Your task to perform on an android device: turn on wifi Image 0: 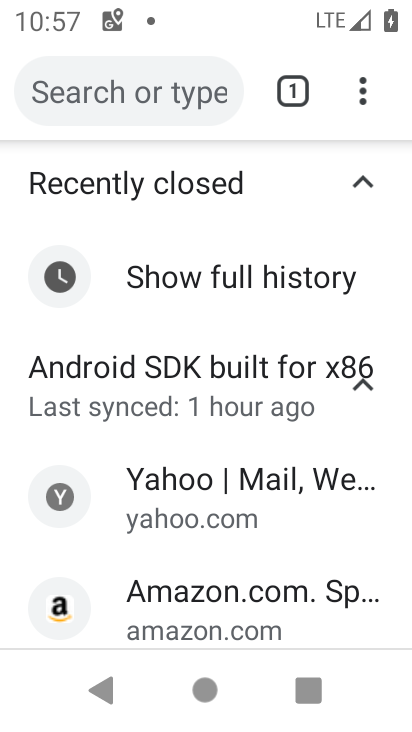
Step 0: click (363, 105)
Your task to perform on an android device: turn on wifi Image 1: 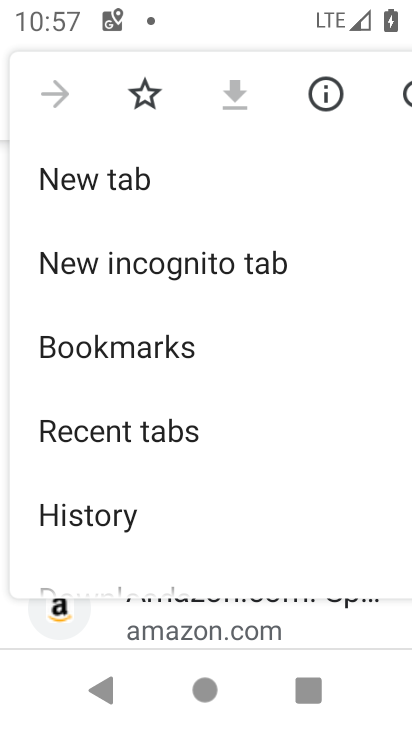
Step 1: drag from (250, 461) to (253, 19)
Your task to perform on an android device: turn on wifi Image 2: 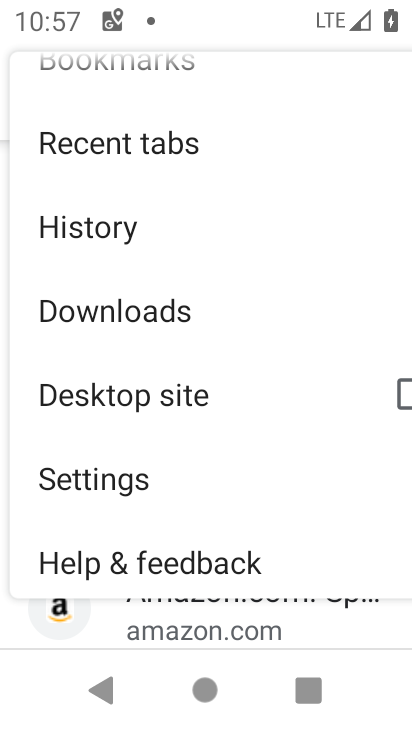
Step 2: press home button
Your task to perform on an android device: turn on wifi Image 3: 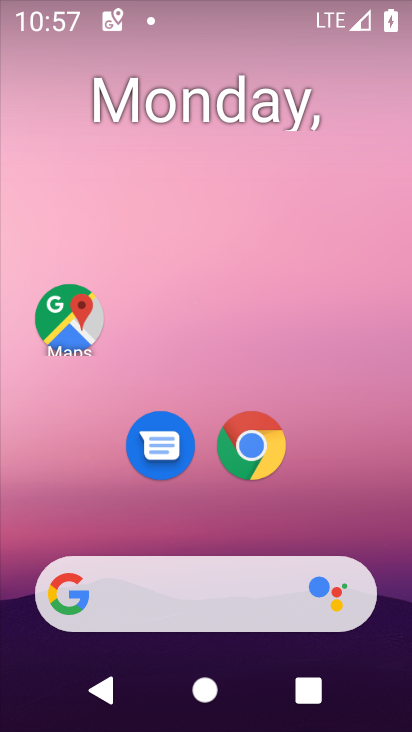
Step 3: drag from (163, 700) to (291, 8)
Your task to perform on an android device: turn on wifi Image 4: 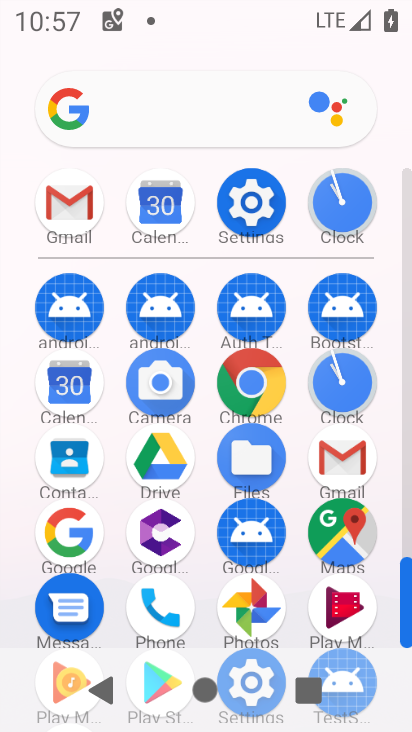
Step 4: click (238, 212)
Your task to perform on an android device: turn on wifi Image 5: 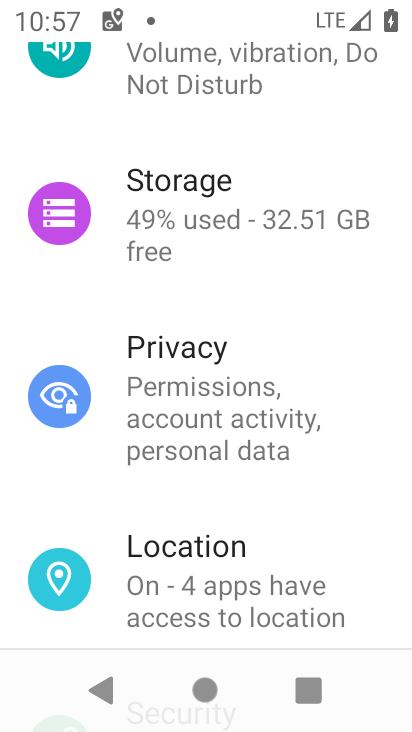
Step 5: drag from (274, 190) to (285, 711)
Your task to perform on an android device: turn on wifi Image 6: 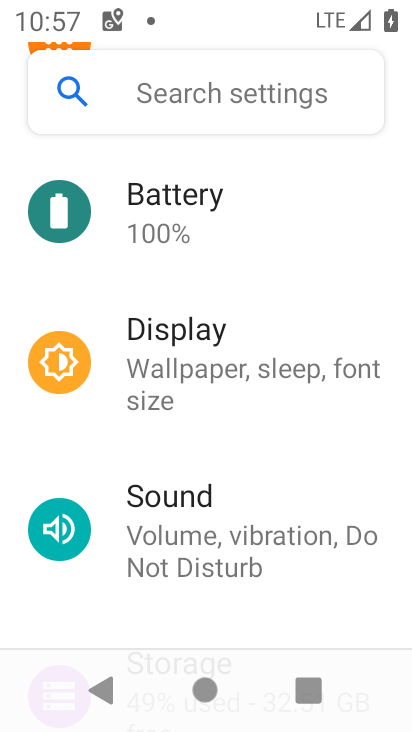
Step 6: drag from (309, 263) to (355, 706)
Your task to perform on an android device: turn on wifi Image 7: 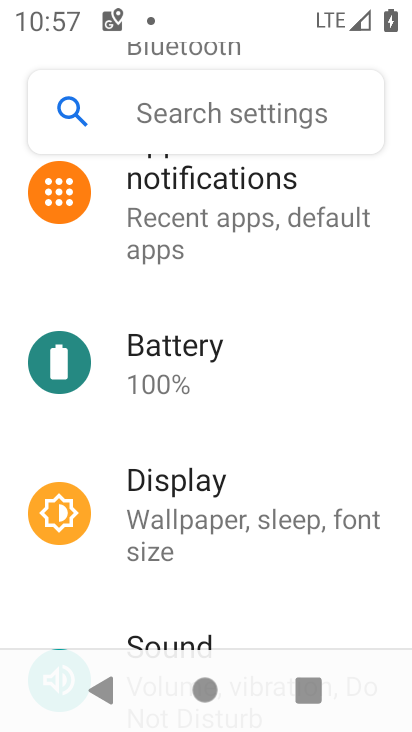
Step 7: drag from (315, 313) to (272, 716)
Your task to perform on an android device: turn on wifi Image 8: 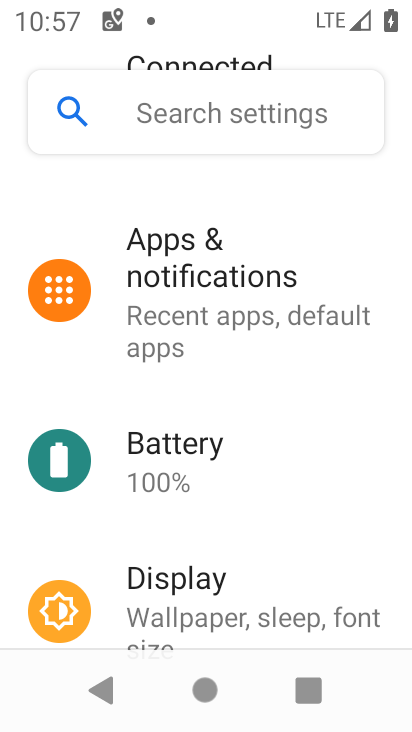
Step 8: drag from (289, 198) to (193, 728)
Your task to perform on an android device: turn on wifi Image 9: 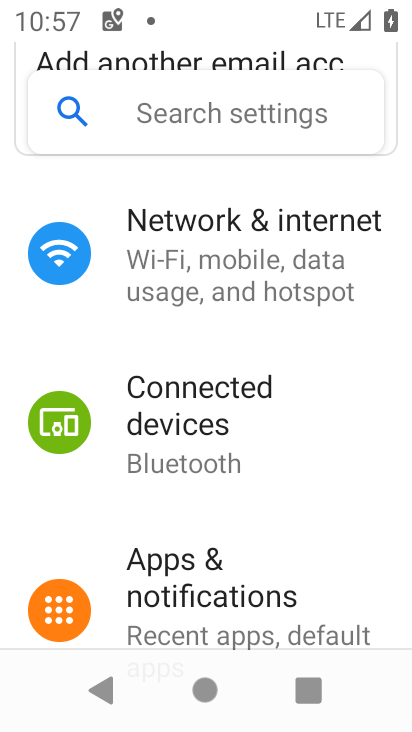
Step 9: click (304, 266)
Your task to perform on an android device: turn on wifi Image 10: 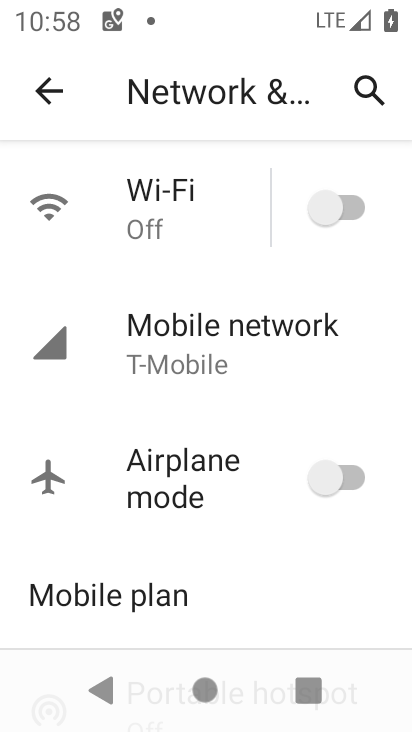
Step 10: click (327, 215)
Your task to perform on an android device: turn on wifi Image 11: 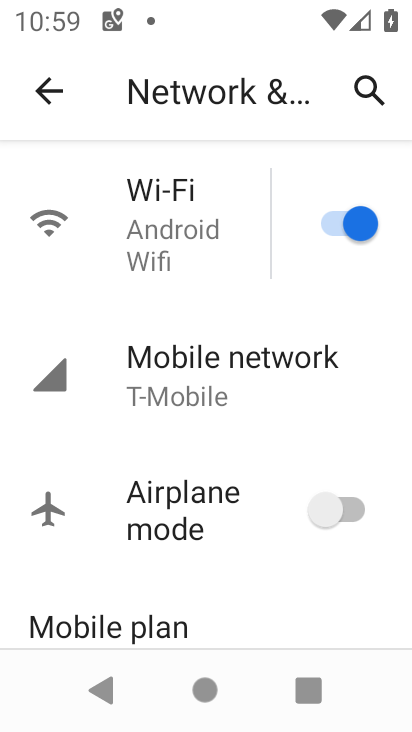
Step 11: task complete